Your task to perform on an android device: see creations saved in the google photos Image 0: 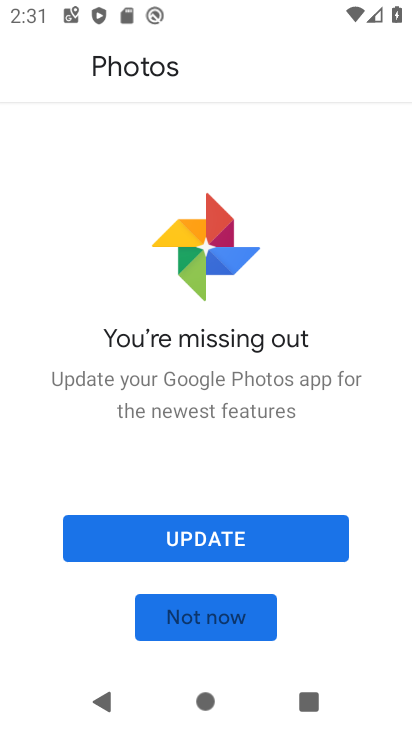
Step 0: click (256, 624)
Your task to perform on an android device: see creations saved in the google photos Image 1: 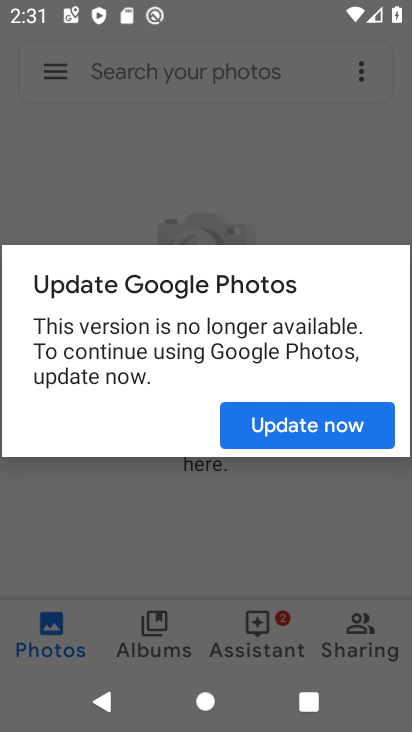
Step 1: click (370, 426)
Your task to perform on an android device: see creations saved in the google photos Image 2: 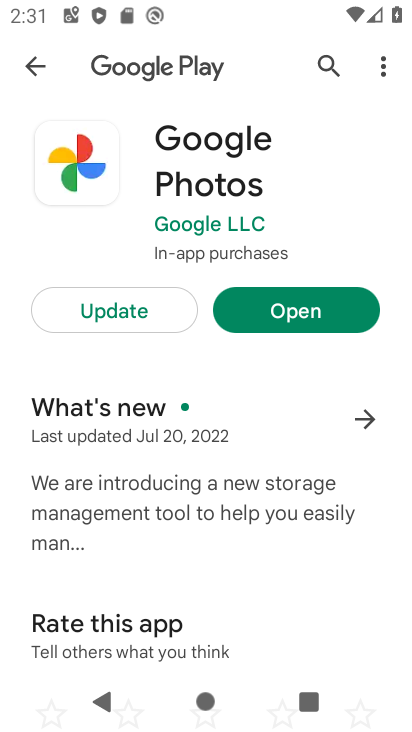
Step 2: click (304, 302)
Your task to perform on an android device: see creations saved in the google photos Image 3: 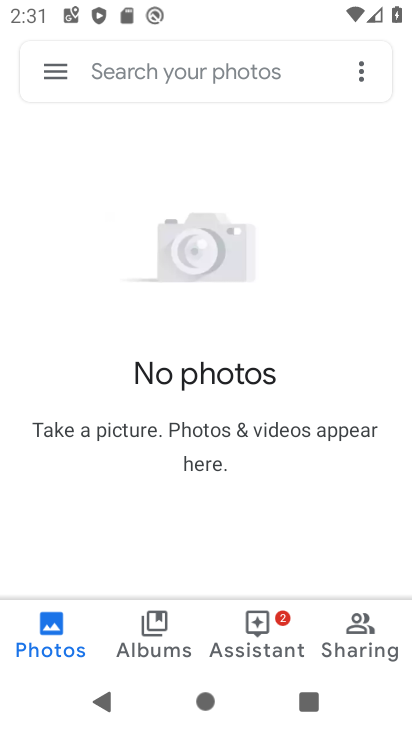
Step 3: click (278, 79)
Your task to perform on an android device: see creations saved in the google photos Image 4: 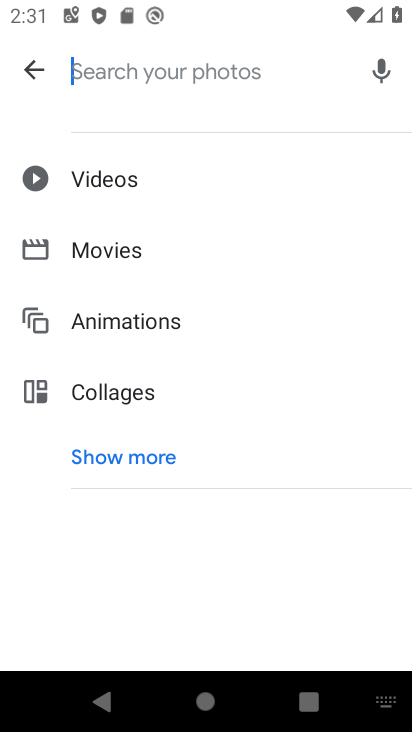
Step 4: click (132, 451)
Your task to perform on an android device: see creations saved in the google photos Image 5: 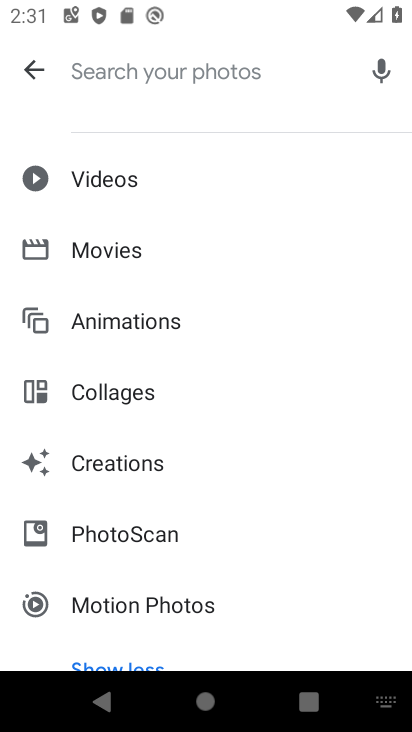
Step 5: click (141, 472)
Your task to perform on an android device: see creations saved in the google photos Image 6: 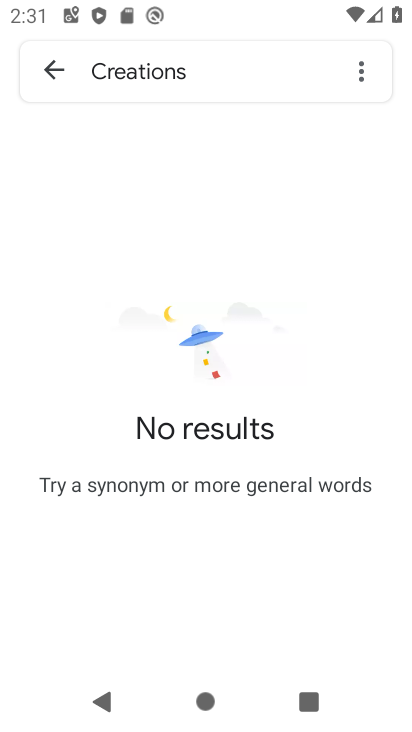
Step 6: task complete